Your task to perform on an android device: set the timer Image 0: 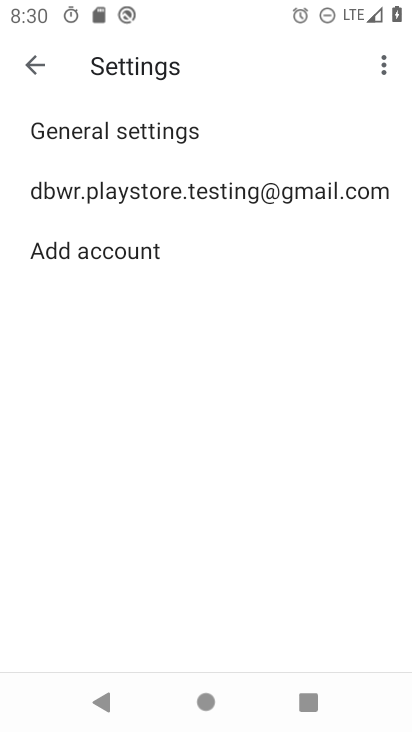
Step 0: press home button
Your task to perform on an android device: set the timer Image 1: 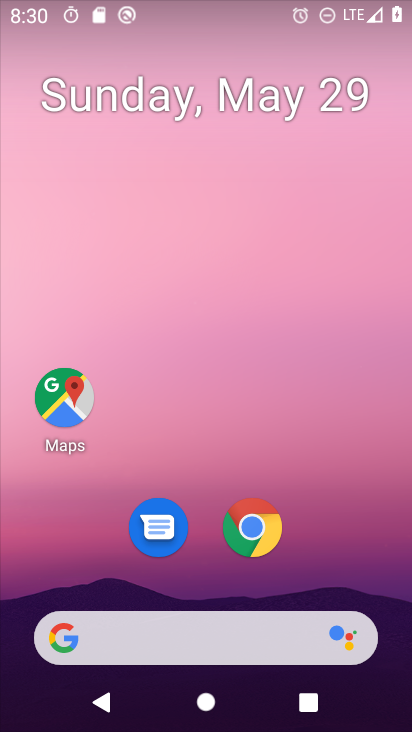
Step 1: drag from (387, 604) to (294, 59)
Your task to perform on an android device: set the timer Image 2: 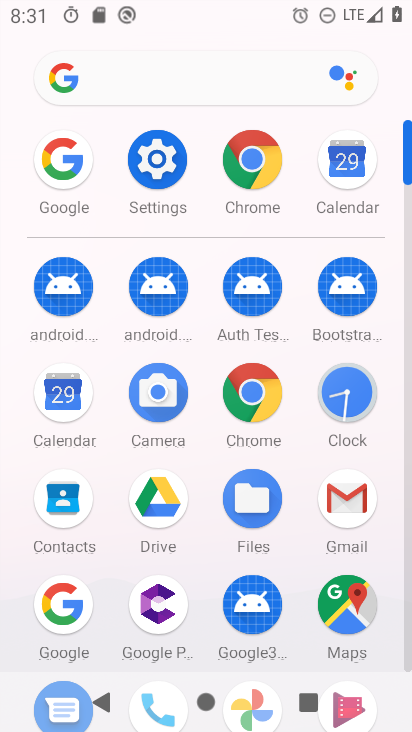
Step 2: click (329, 400)
Your task to perform on an android device: set the timer Image 3: 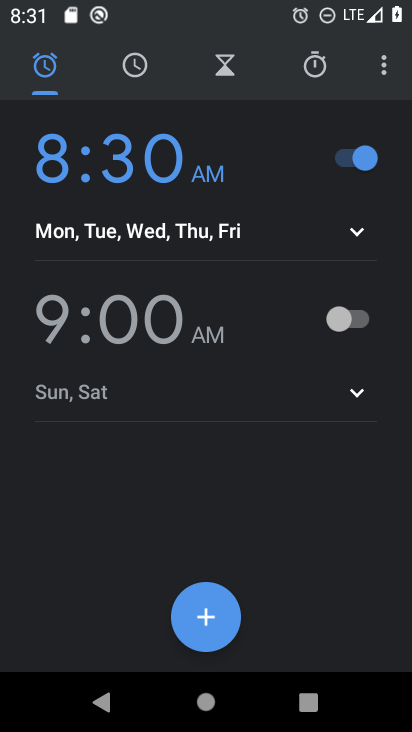
Step 3: click (384, 63)
Your task to perform on an android device: set the timer Image 4: 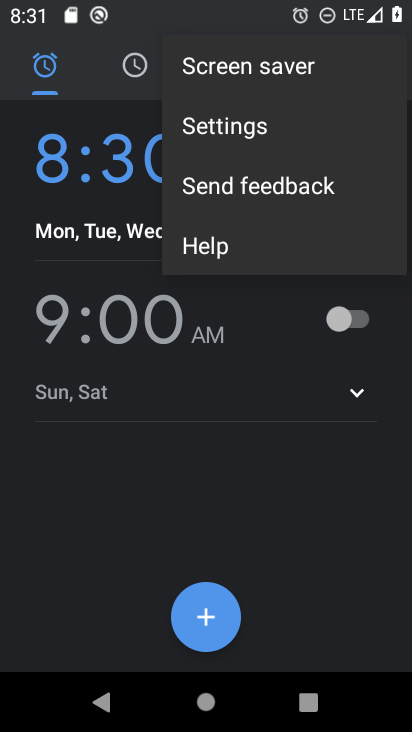
Step 4: click (203, 567)
Your task to perform on an android device: set the timer Image 5: 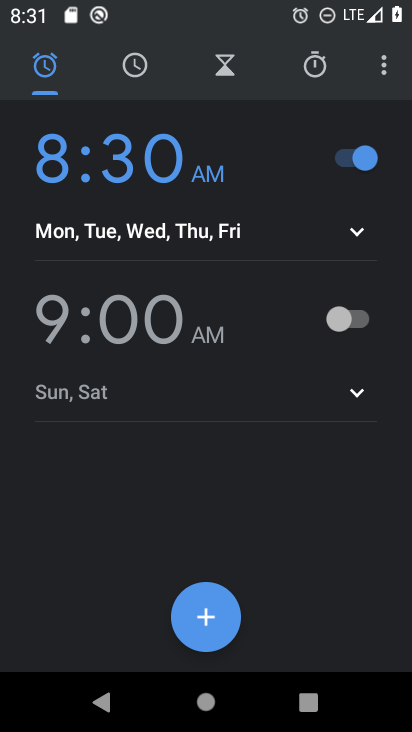
Step 5: click (382, 71)
Your task to perform on an android device: set the timer Image 6: 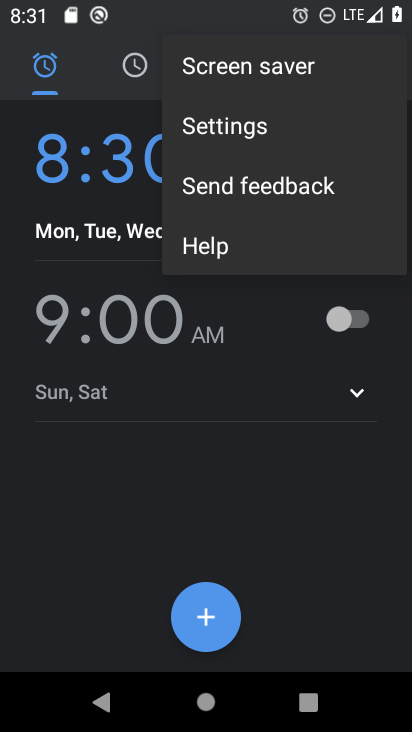
Step 6: click (267, 129)
Your task to perform on an android device: set the timer Image 7: 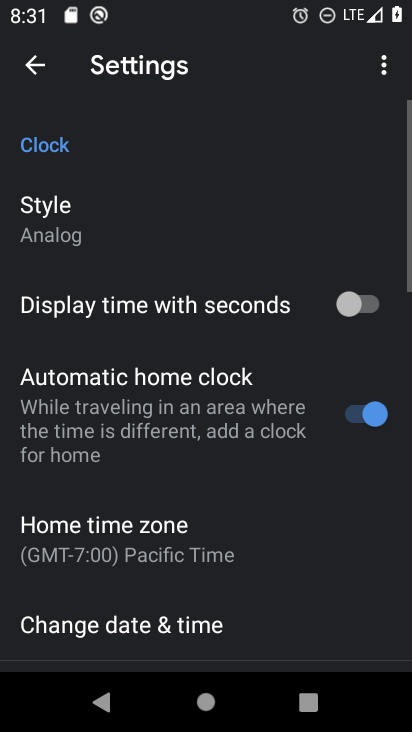
Step 7: click (140, 551)
Your task to perform on an android device: set the timer Image 8: 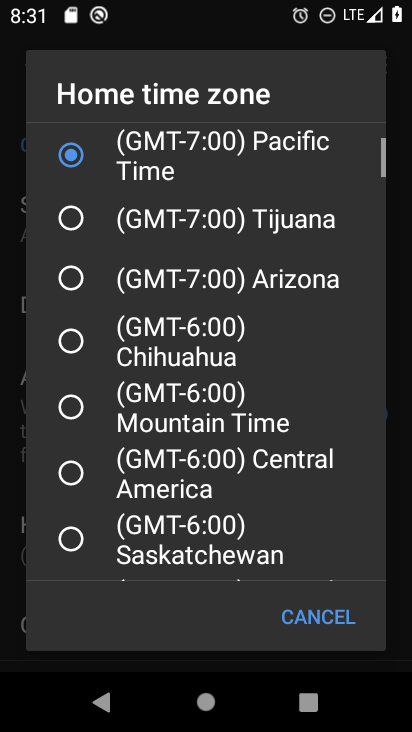
Step 8: click (198, 349)
Your task to perform on an android device: set the timer Image 9: 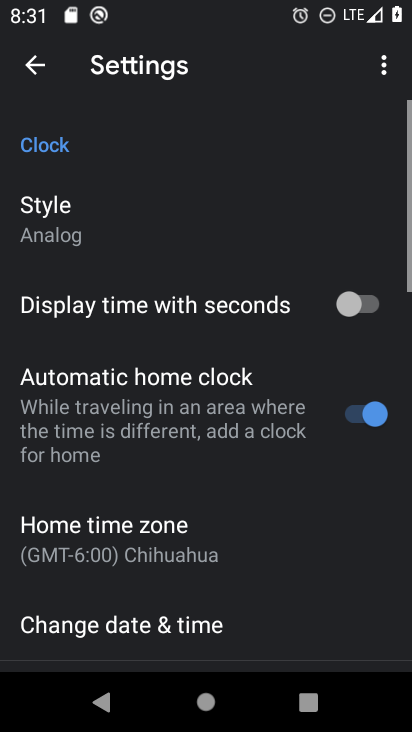
Step 9: task complete